Your task to perform on an android device: Open Android settings Image 0: 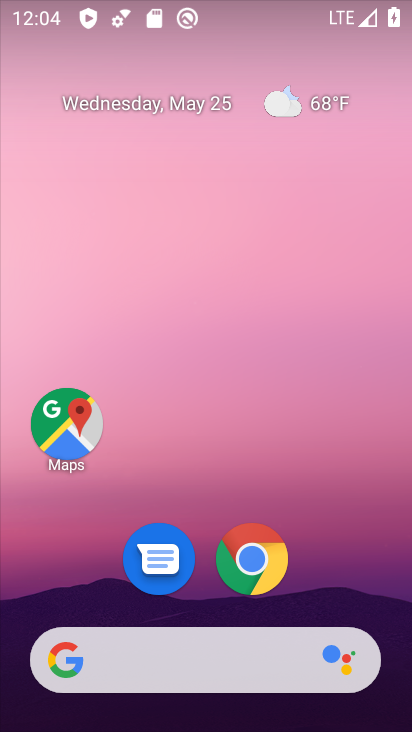
Step 0: drag from (404, 636) to (300, 79)
Your task to perform on an android device: Open Android settings Image 1: 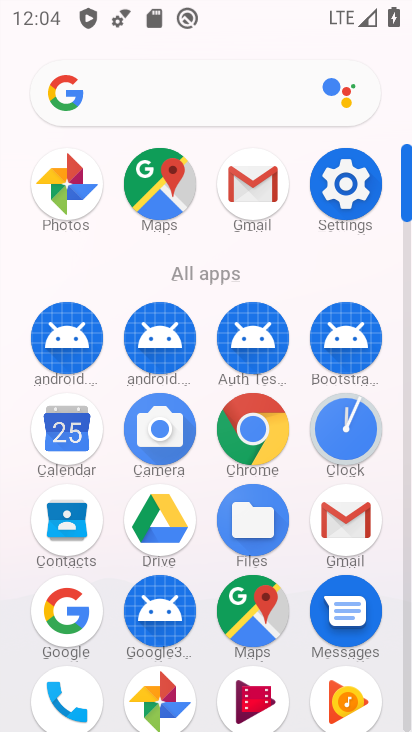
Step 1: click (408, 709)
Your task to perform on an android device: Open Android settings Image 2: 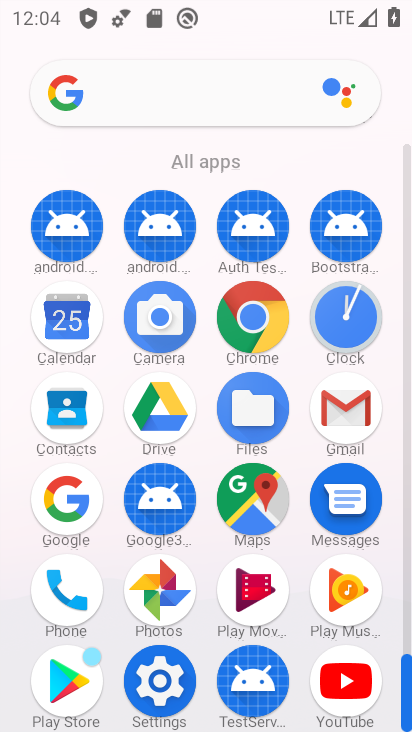
Step 2: click (163, 683)
Your task to perform on an android device: Open Android settings Image 3: 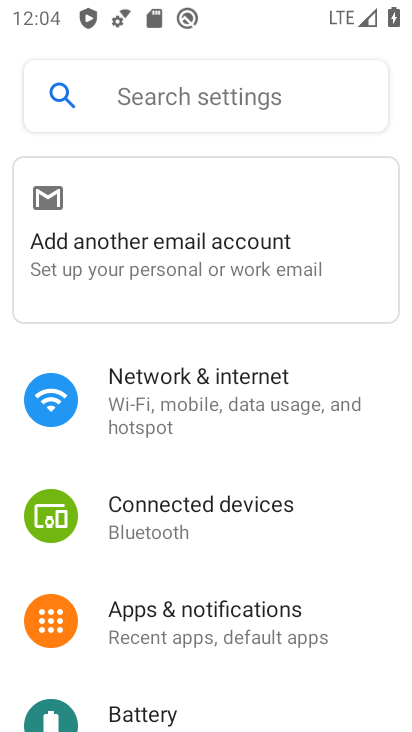
Step 3: drag from (352, 650) to (339, 199)
Your task to perform on an android device: Open Android settings Image 4: 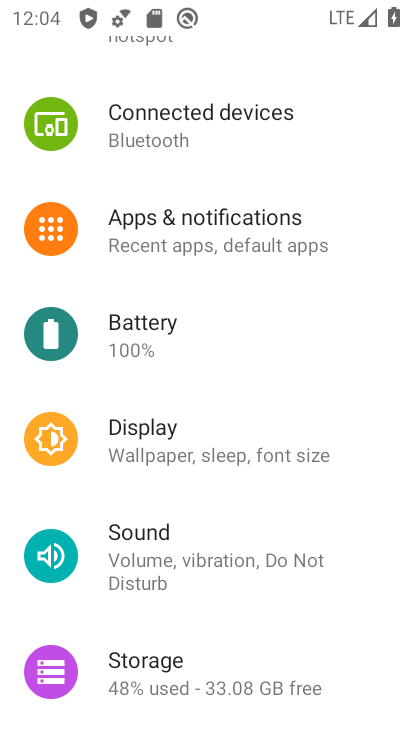
Step 4: drag from (345, 607) to (314, 240)
Your task to perform on an android device: Open Android settings Image 5: 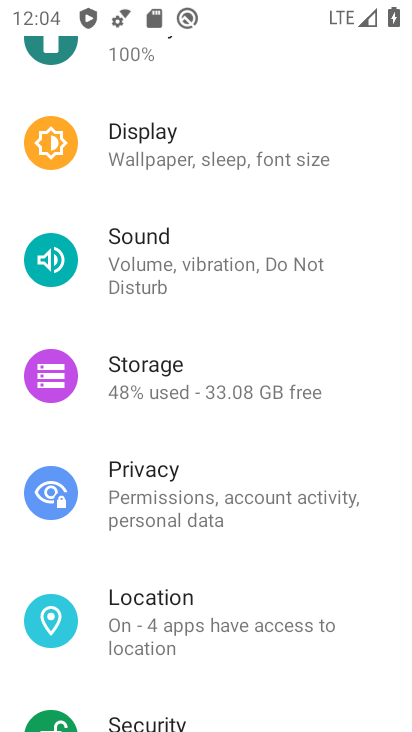
Step 5: drag from (357, 667) to (368, 187)
Your task to perform on an android device: Open Android settings Image 6: 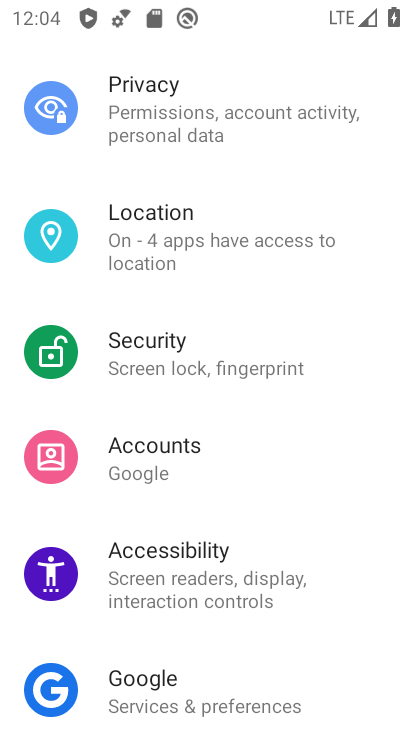
Step 6: drag from (327, 672) to (344, 235)
Your task to perform on an android device: Open Android settings Image 7: 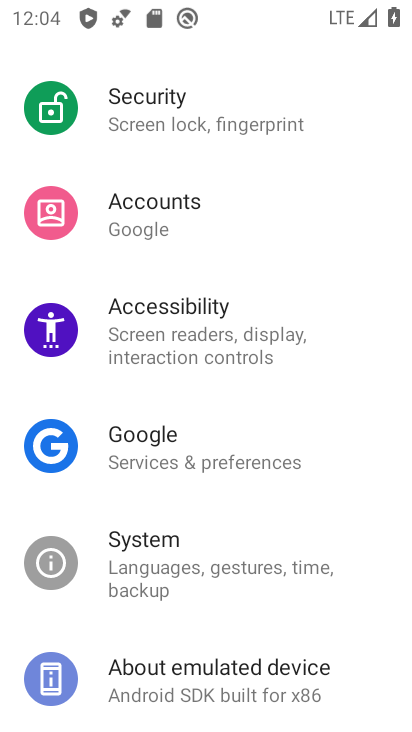
Step 7: drag from (360, 637) to (317, 251)
Your task to perform on an android device: Open Android settings Image 8: 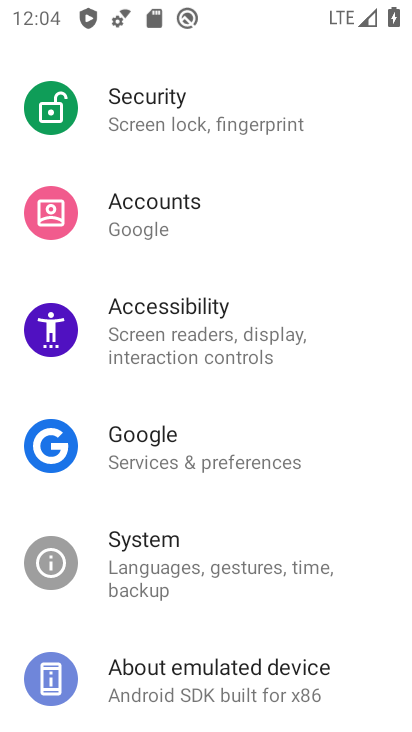
Step 8: click (164, 661)
Your task to perform on an android device: Open Android settings Image 9: 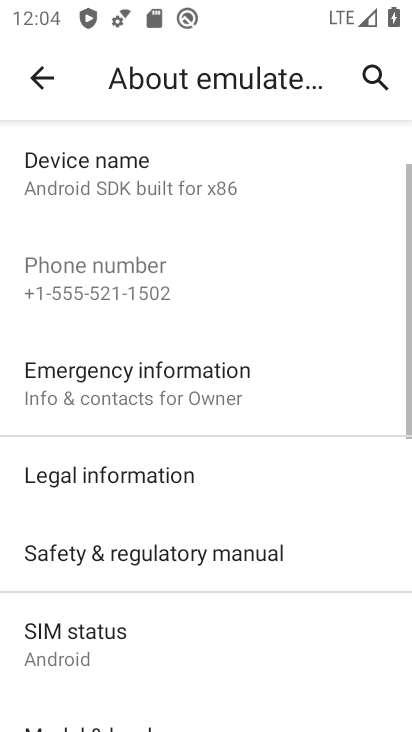
Step 9: task complete